Your task to perform on an android device: When is my next appointment? Image 0: 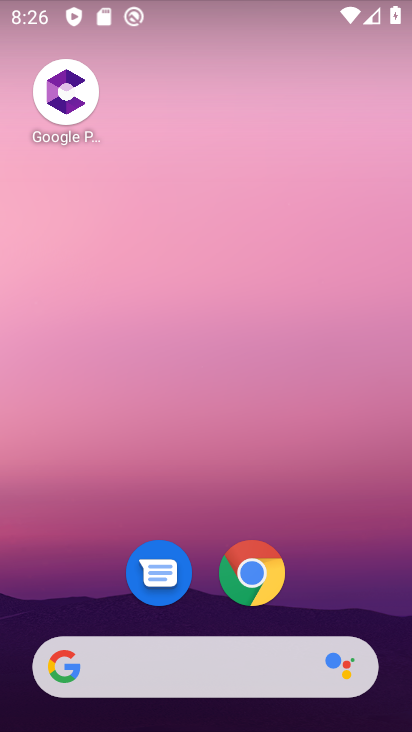
Step 0: drag from (334, 570) to (349, 157)
Your task to perform on an android device: When is my next appointment? Image 1: 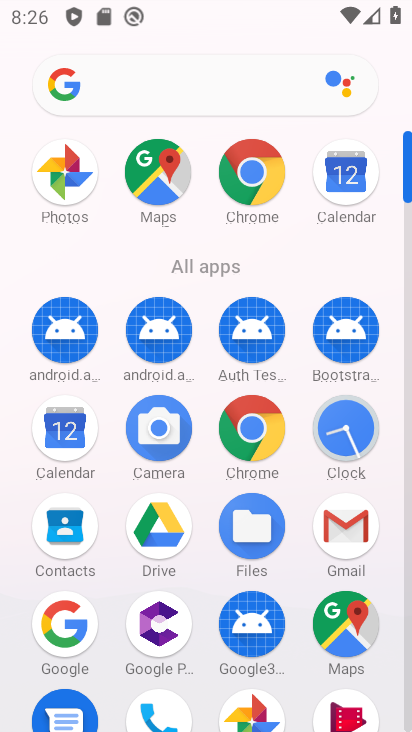
Step 1: click (75, 450)
Your task to perform on an android device: When is my next appointment? Image 2: 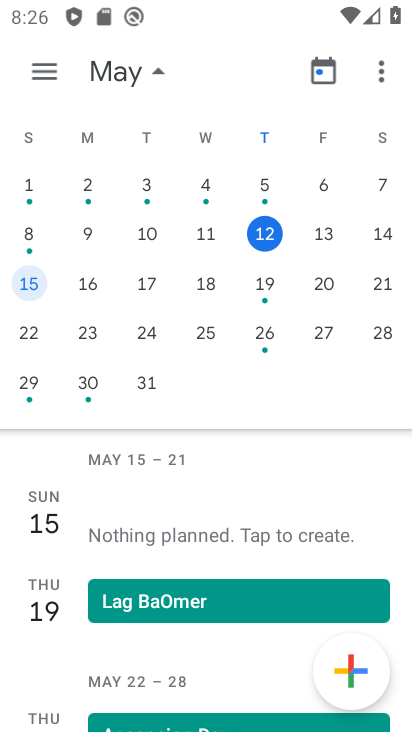
Step 2: click (318, 232)
Your task to perform on an android device: When is my next appointment? Image 3: 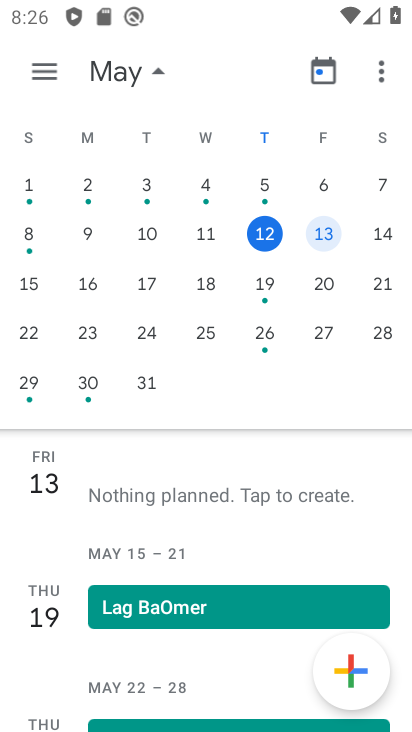
Step 3: click (390, 241)
Your task to perform on an android device: When is my next appointment? Image 4: 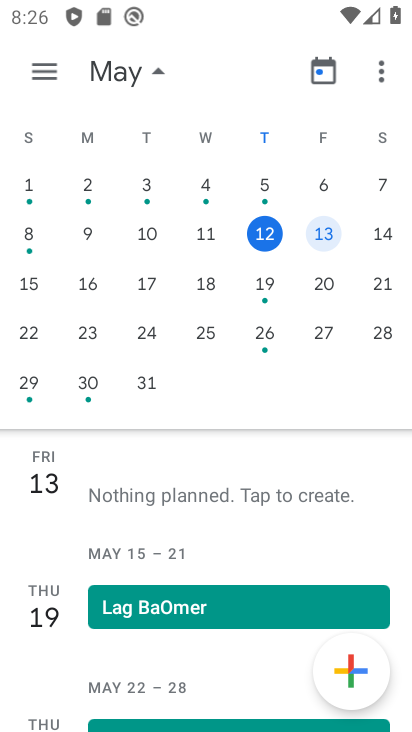
Step 4: click (389, 235)
Your task to perform on an android device: When is my next appointment? Image 5: 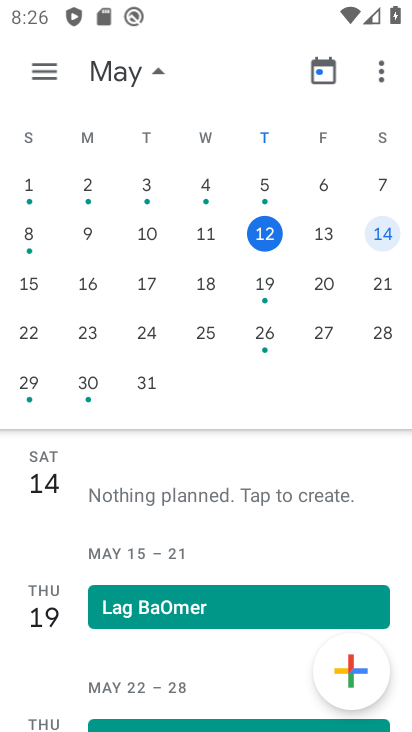
Step 5: drag from (235, 558) to (270, 263)
Your task to perform on an android device: When is my next appointment? Image 6: 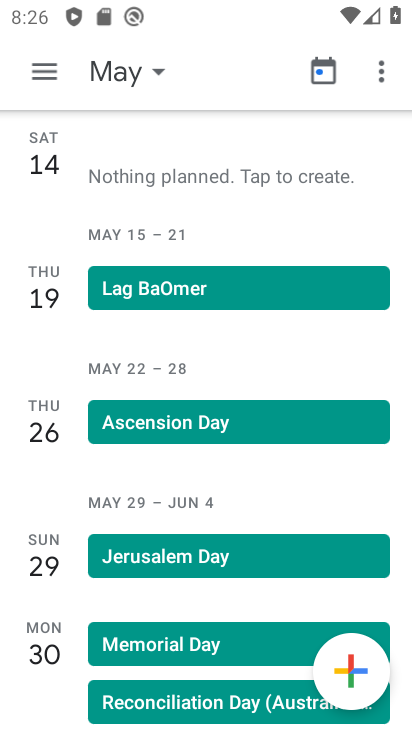
Step 6: drag from (259, 272) to (257, 606)
Your task to perform on an android device: When is my next appointment? Image 7: 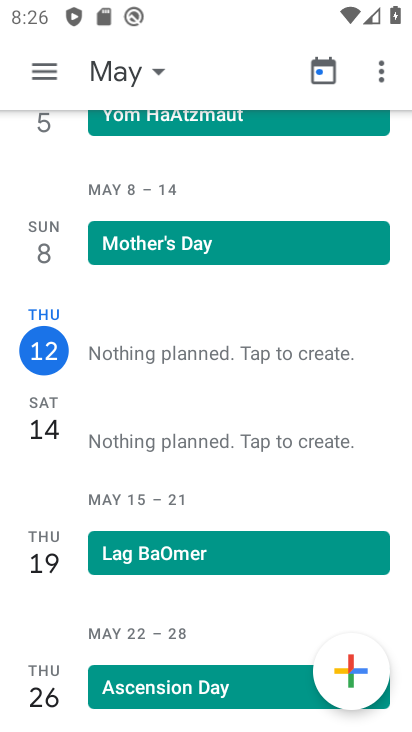
Step 7: drag from (209, 260) to (239, 580)
Your task to perform on an android device: When is my next appointment? Image 8: 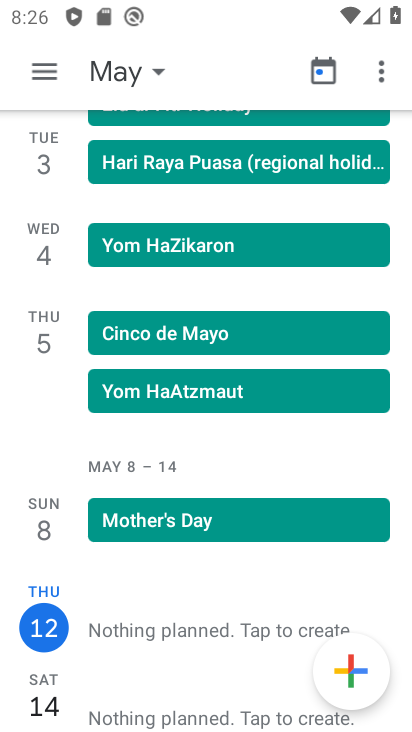
Step 8: click (137, 72)
Your task to perform on an android device: When is my next appointment? Image 9: 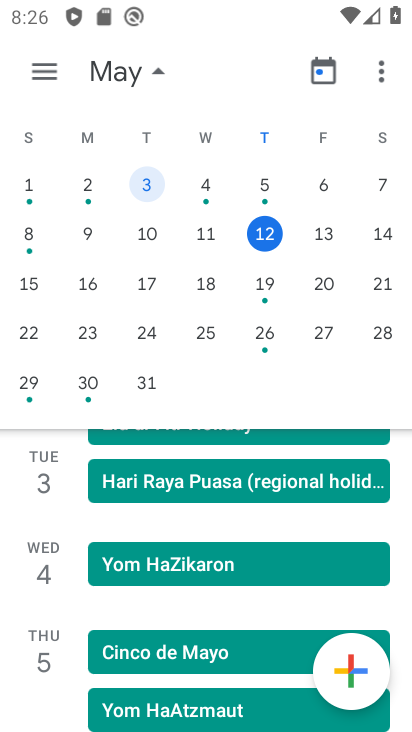
Step 9: click (83, 288)
Your task to perform on an android device: When is my next appointment? Image 10: 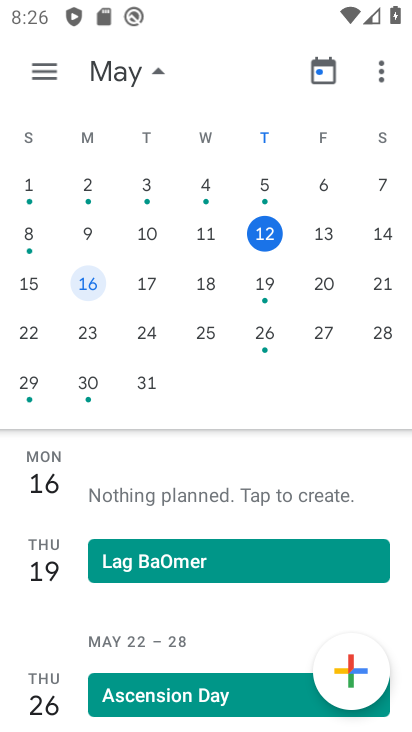
Step 10: click (155, 290)
Your task to perform on an android device: When is my next appointment? Image 11: 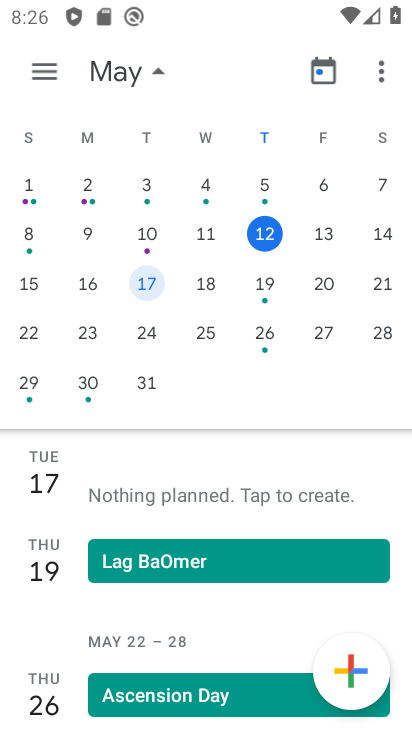
Step 11: task complete